Your task to perform on an android device: Is it going to rain today? Image 0: 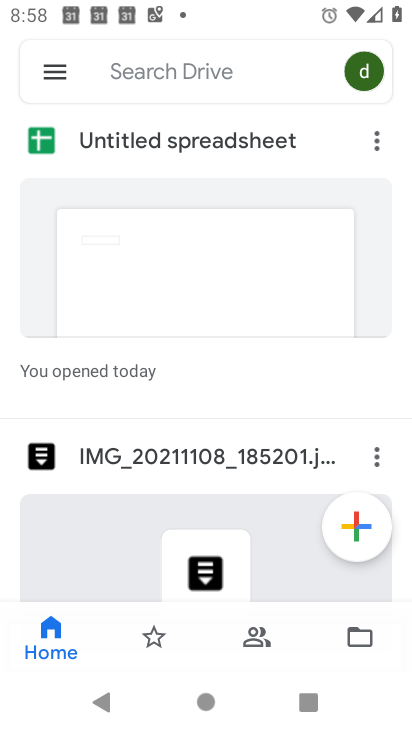
Step 0: press home button
Your task to perform on an android device: Is it going to rain today? Image 1: 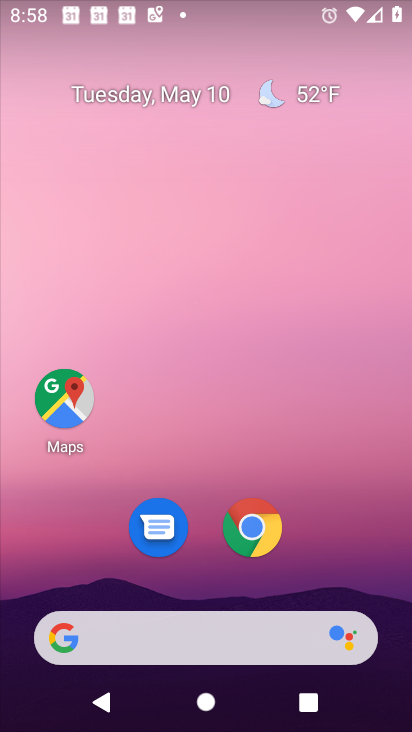
Step 1: click (236, 524)
Your task to perform on an android device: Is it going to rain today? Image 2: 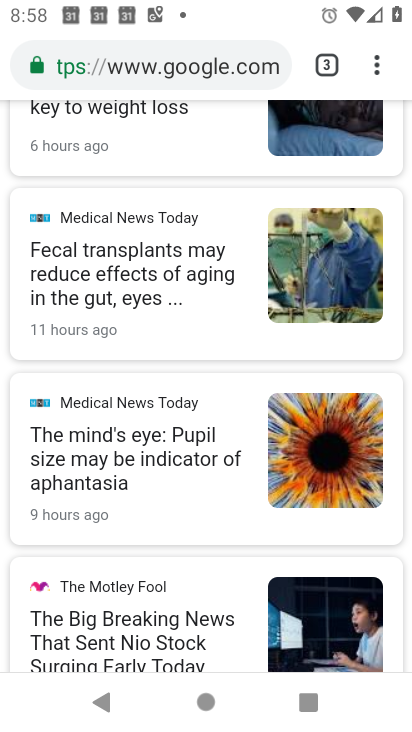
Step 2: drag from (255, 284) to (197, 548)
Your task to perform on an android device: Is it going to rain today? Image 3: 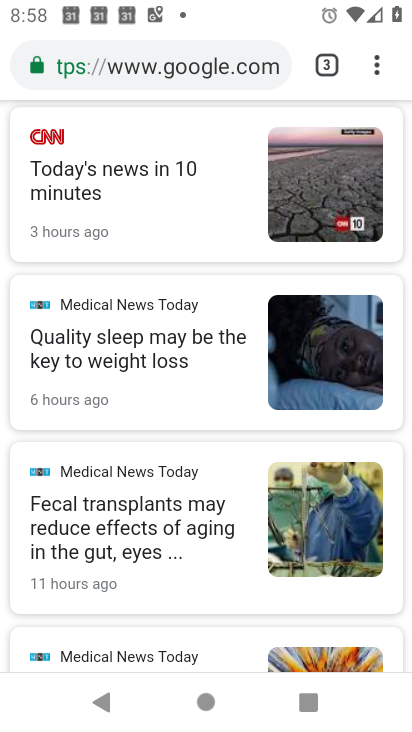
Step 3: click (329, 61)
Your task to perform on an android device: Is it going to rain today? Image 4: 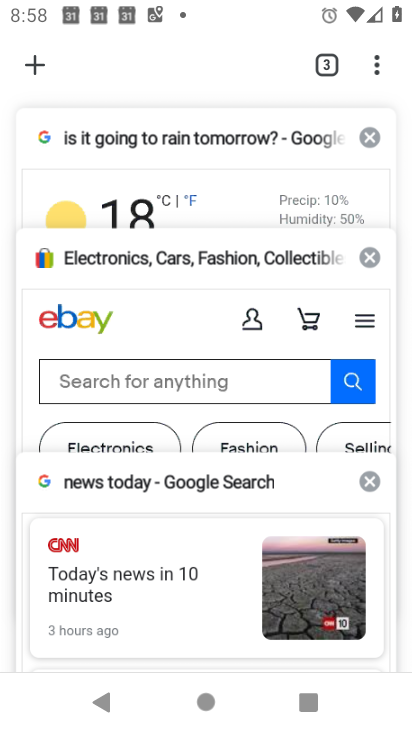
Step 4: click (151, 154)
Your task to perform on an android device: Is it going to rain today? Image 5: 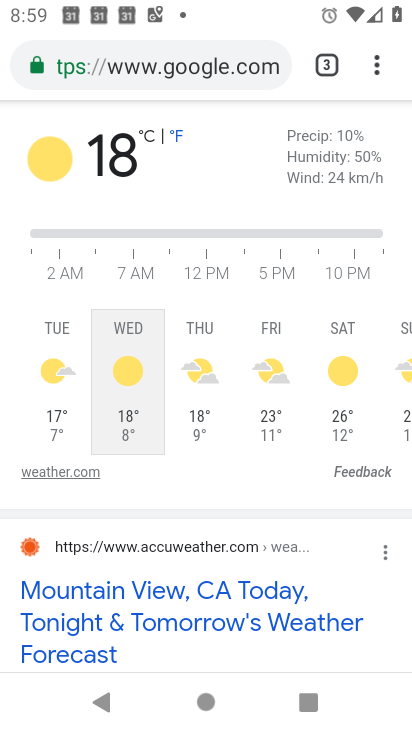
Step 5: click (331, 62)
Your task to perform on an android device: Is it going to rain today? Image 6: 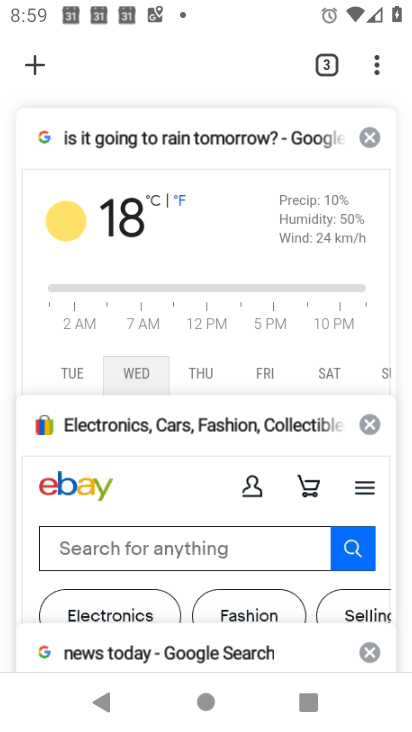
Step 6: click (36, 66)
Your task to perform on an android device: Is it going to rain today? Image 7: 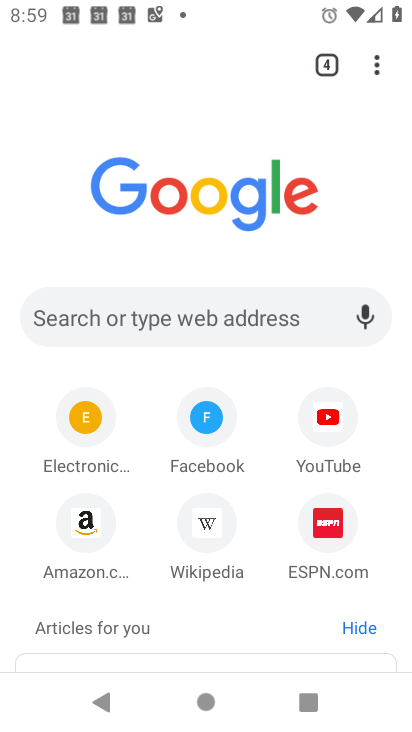
Step 7: click (121, 316)
Your task to perform on an android device: Is it going to rain today? Image 8: 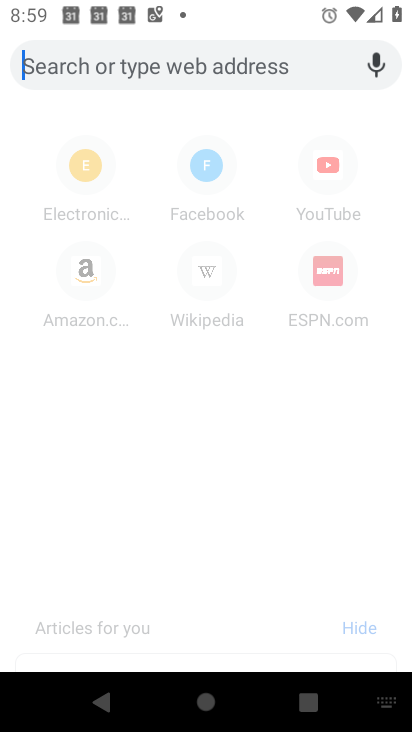
Step 8: type "is it  going to rain today?"
Your task to perform on an android device: Is it going to rain today? Image 9: 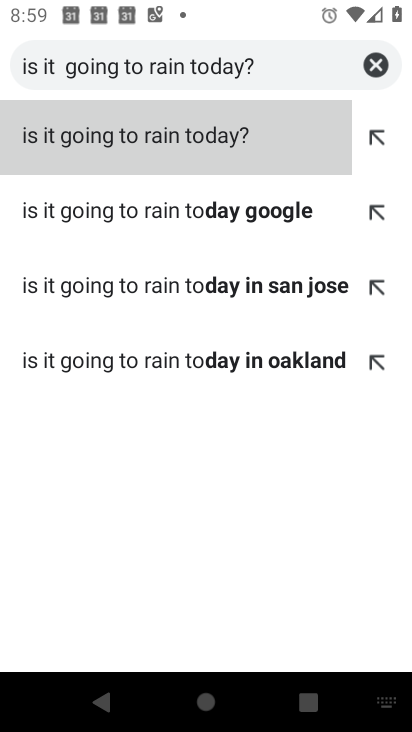
Step 9: click (177, 131)
Your task to perform on an android device: Is it going to rain today? Image 10: 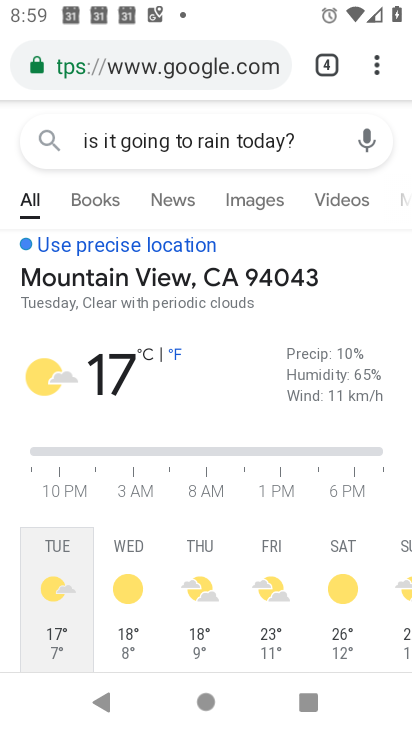
Step 10: task complete